Your task to perform on an android device: turn notification dots off Image 0: 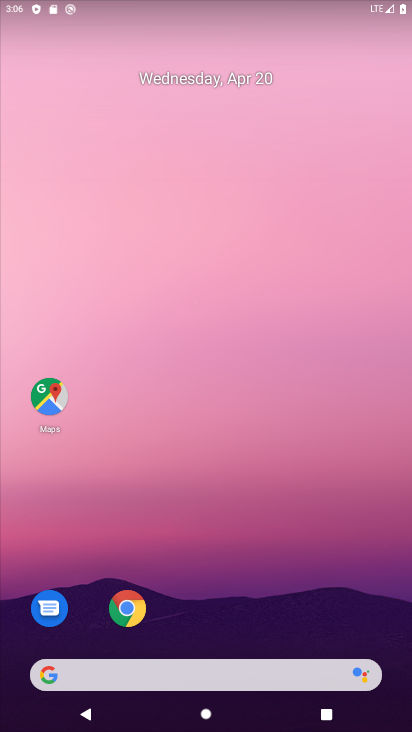
Step 0: drag from (223, 653) to (156, 26)
Your task to perform on an android device: turn notification dots off Image 1: 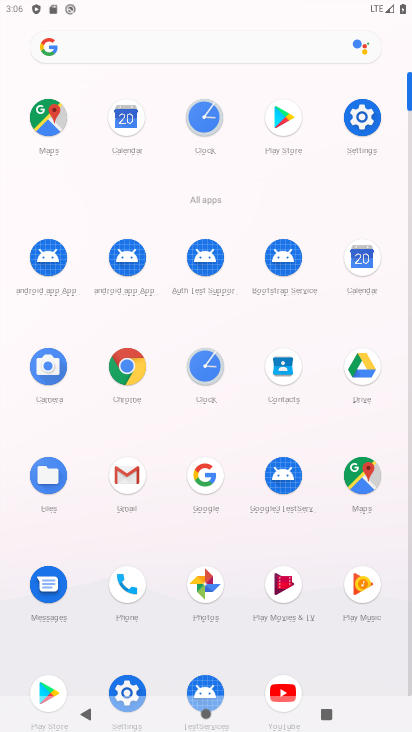
Step 1: click (361, 125)
Your task to perform on an android device: turn notification dots off Image 2: 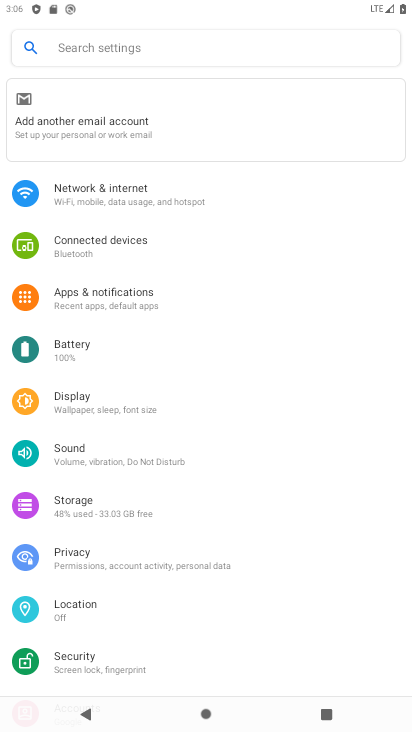
Step 2: click (106, 300)
Your task to perform on an android device: turn notification dots off Image 3: 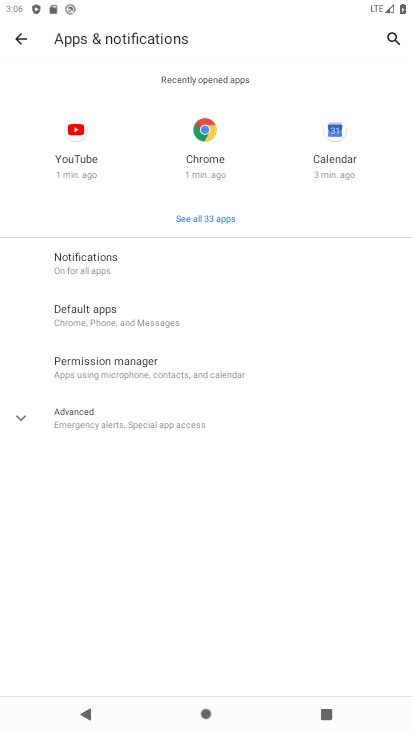
Step 3: click (92, 251)
Your task to perform on an android device: turn notification dots off Image 4: 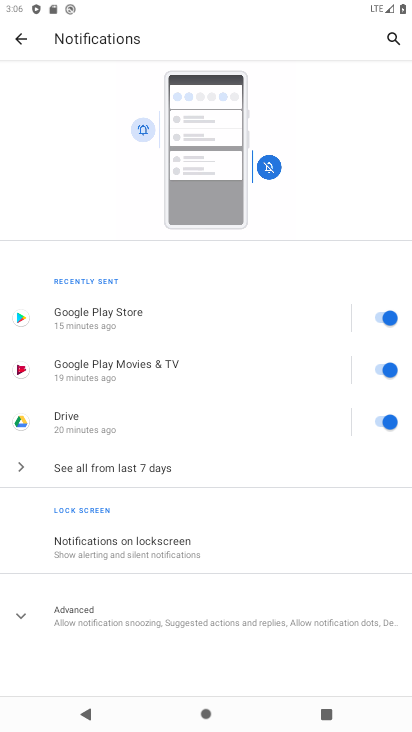
Step 4: click (148, 609)
Your task to perform on an android device: turn notification dots off Image 5: 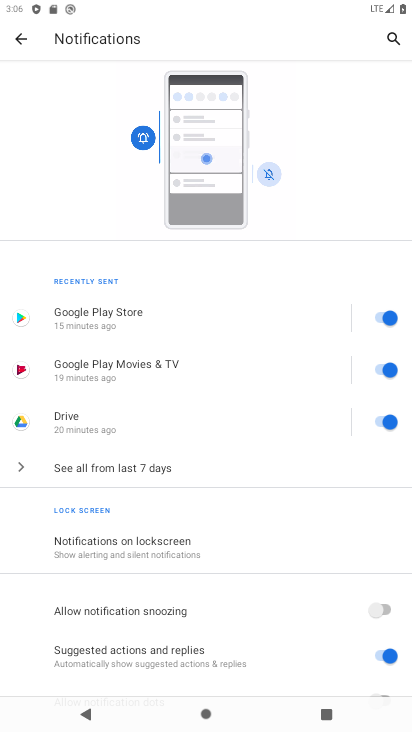
Step 5: task complete